Your task to perform on an android device: turn on showing notifications on the lock screen Image 0: 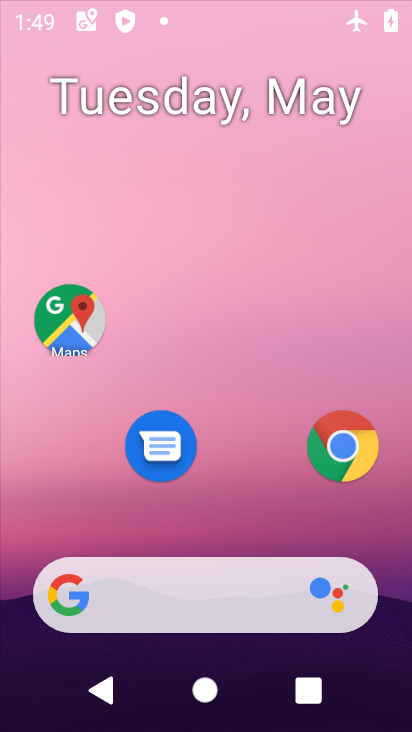
Step 0: click (213, 534)
Your task to perform on an android device: turn on showing notifications on the lock screen Image 1: 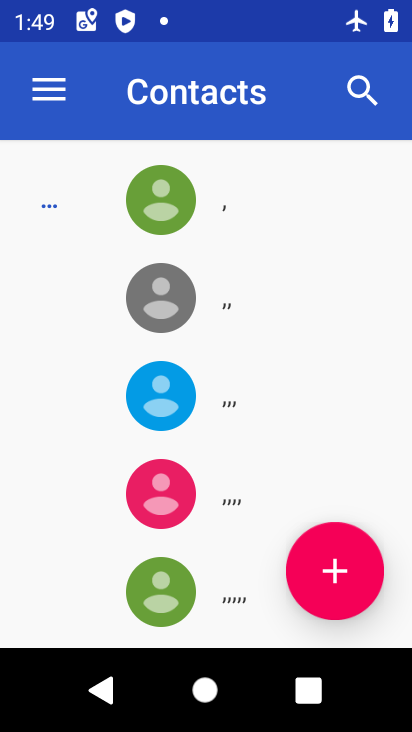
Step 1: press home button
Your task to perform on an android device: turn on showing notifications on the lock screen Image 2: 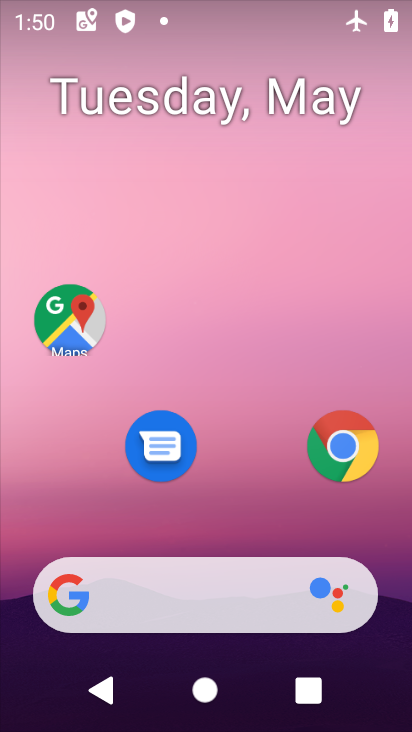
Step 2: drag from (196, 322) to (152, 54)
Your task to perform on an android device: turn on showing notifications on the lock screen Image 3: 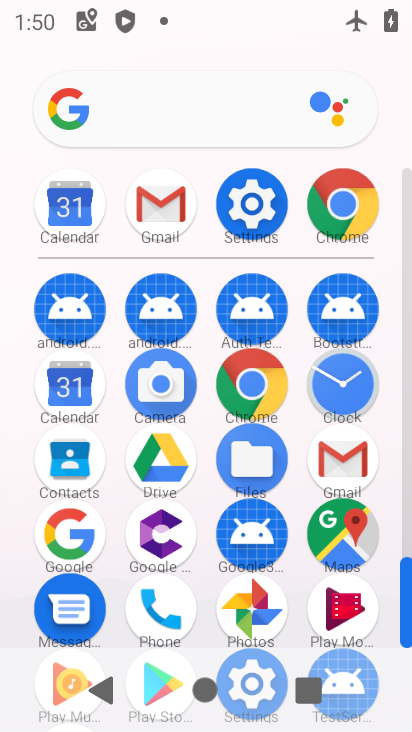
Step 3: click (235, 216)
Your task to perform on an android device: turn on showing notifications on the lock screen Image 4: 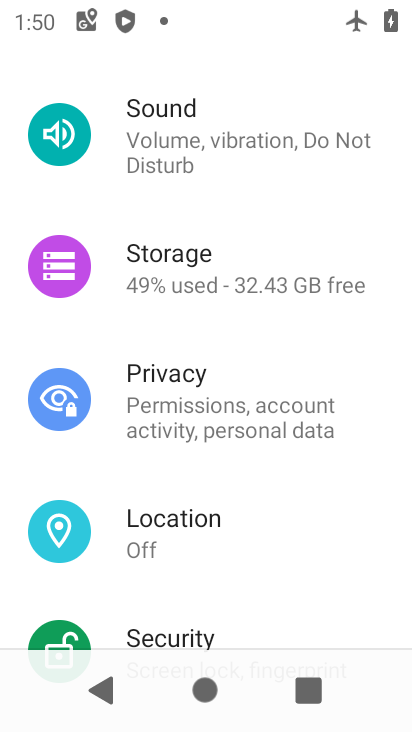
Step 4: drag from (235, 216) to (235, 606)
Your task to perform on an android device: turn on showing notifications on the lock screen Image 5: 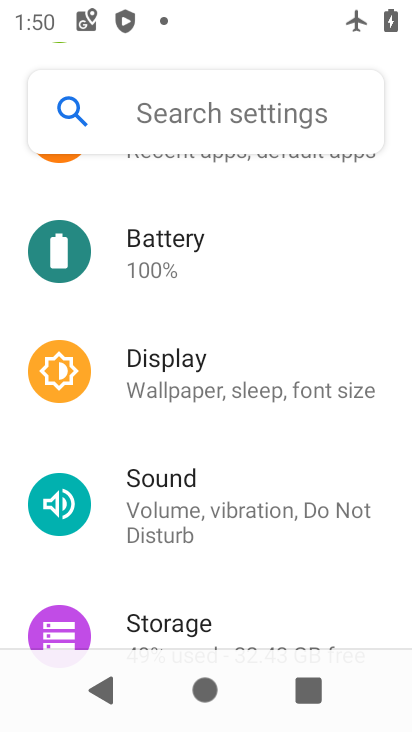
Step 5: drag from (204, 196) to (201, 468)
Your task to perform on an android device: turn on showing notifications on the lock screen Image 6: 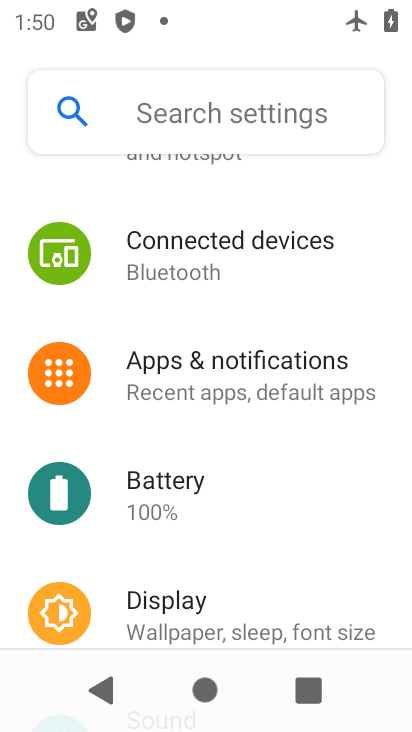
Step 6: click (202, 376)
Your task to perform on an android device: turn on showing notifications on the lock screen Image 7: 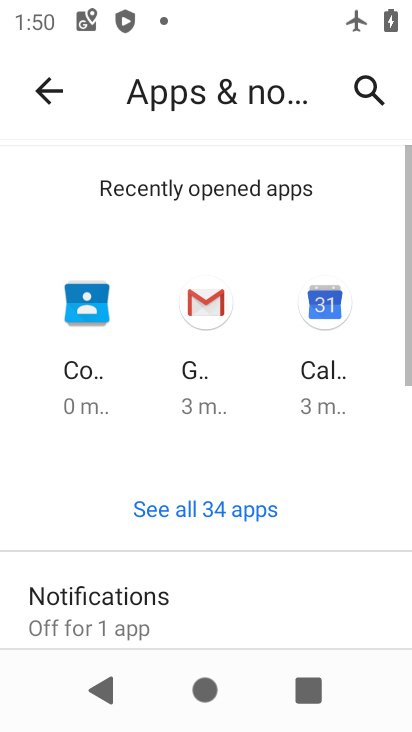
Step 7: click (131, 602)
Your task to perform on an android device: turn on showing notifications on the lock screen Image 8: 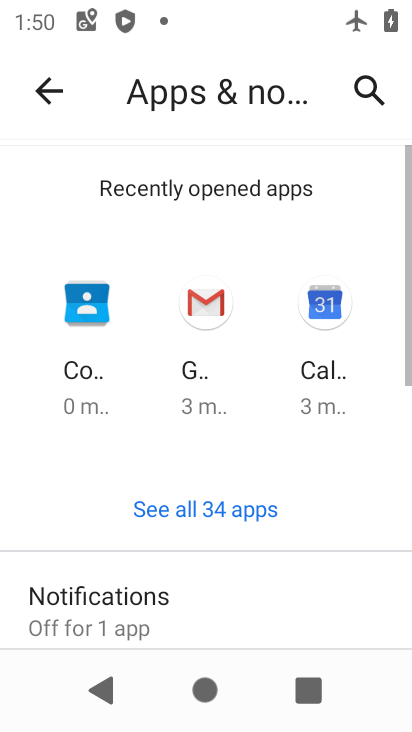
Step 8: drag from (153, 589) to (101, 193)
Your task to perform on an android device: turn on showing notifications on the lock screen Image 9: 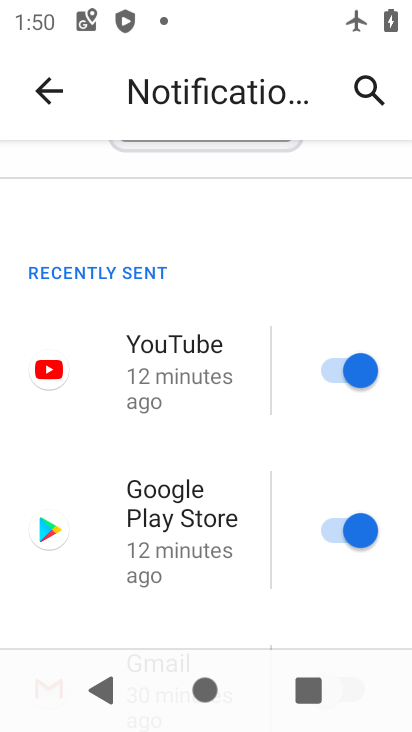
Step 9: drag from (234, 590) to (187, 180)
Your task to perform on an android device: turn on showing notifications on the lock screen Image 10: 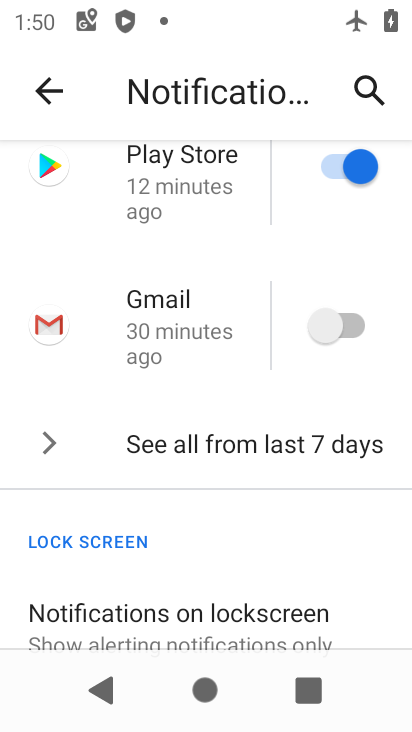
Step 10: click (245, 597)
Your task to perform on an android device: turn on showing notifications on the lock screen Image 11: 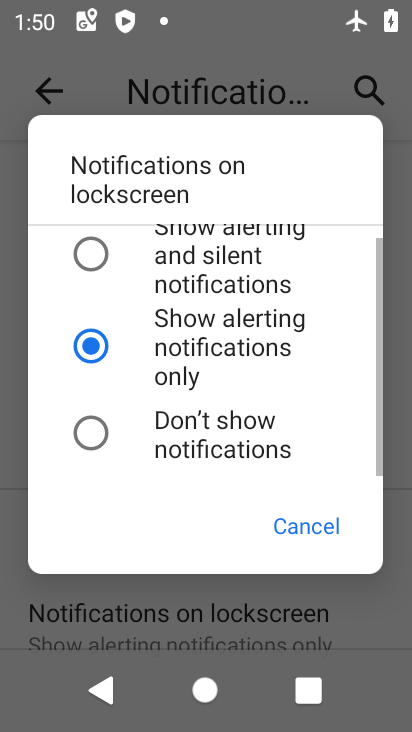
Step 11: click (211, 226)
Your task to perform on an android device: turn on showing notifications on the lock screen Image 12: 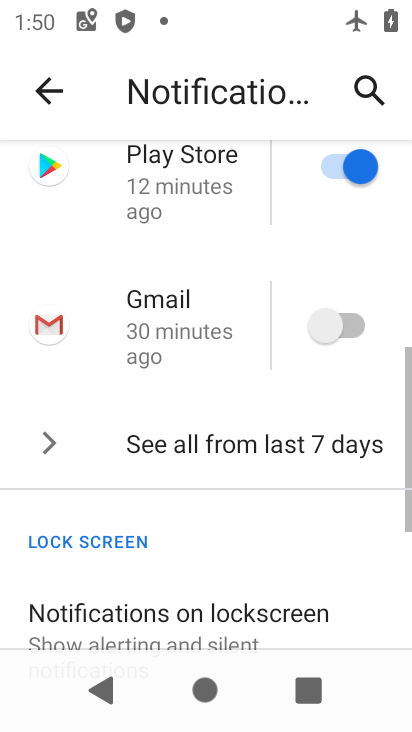
Step 12: task complete